Your task to perform on an android device: manage bookmarks in the chrome app Image 0: 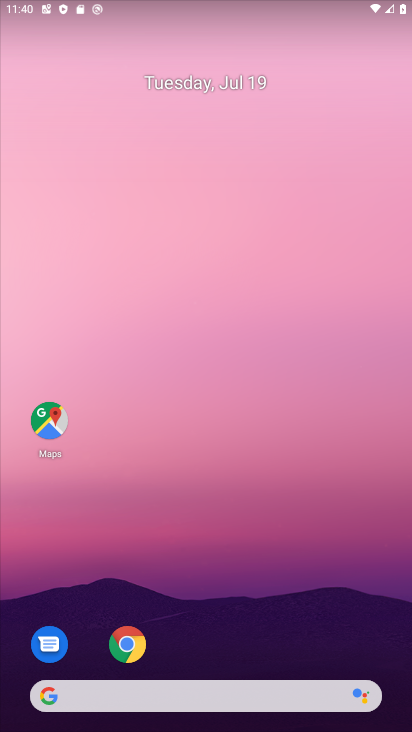
Step 0: click (243, 499)
Your task to perform on an android device: manage bookmarks in the chrome app Image 1: 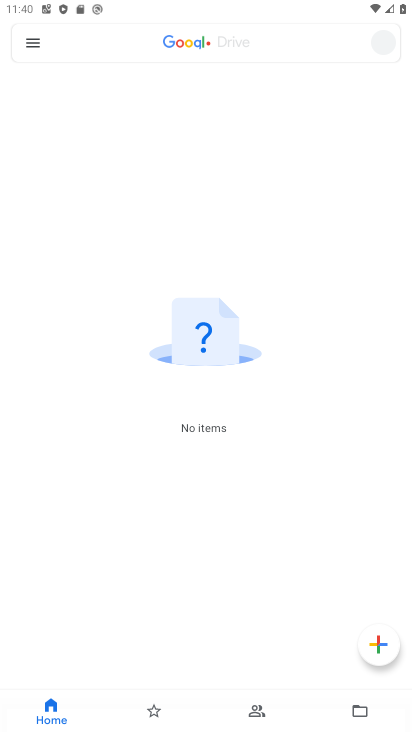
Step 1: click (21, 694)
Your task to perform on an android device: manage bookmarks in the chrome app Image 2: 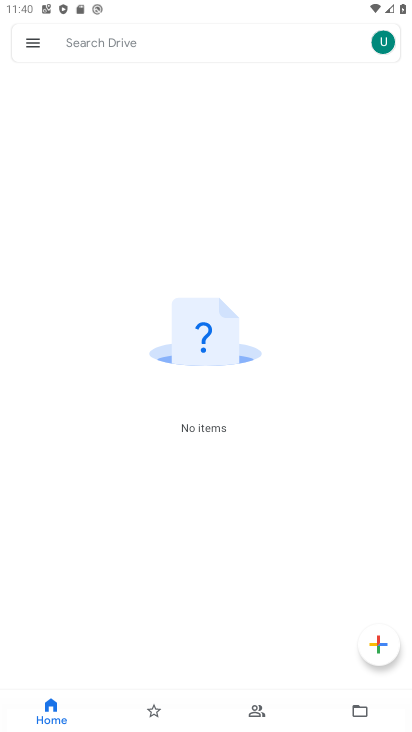
Step 2: press home button
Your task to perform on an android device: manage bookmarks in the chrome app Image 3: 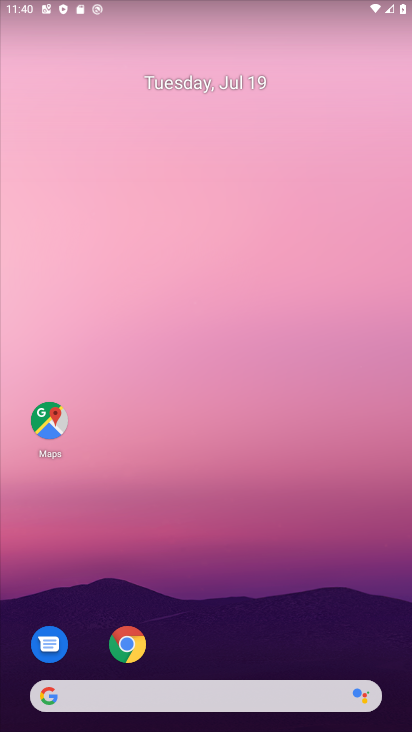
Step 3: drag from (89, 618) to (342, 220)
Your task to perform on an android device: manage bookmarks in the chrome app Image 4: 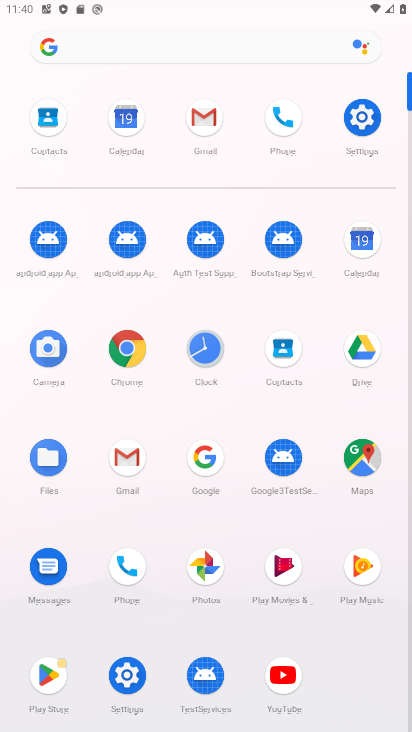
Step 4: click (127, 350)
Your task to perform on an android device: manage bookmarks in the chrome app Image 5: 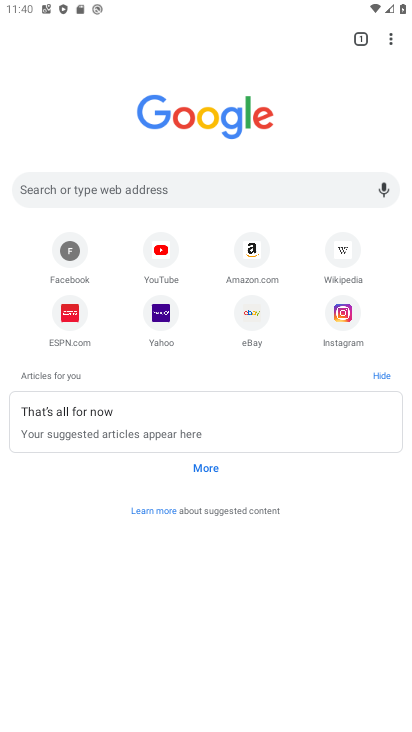
Step 5: click (395, 36)
Your task to perform on an android device: manage bookmarks in the chrome app Image 6: 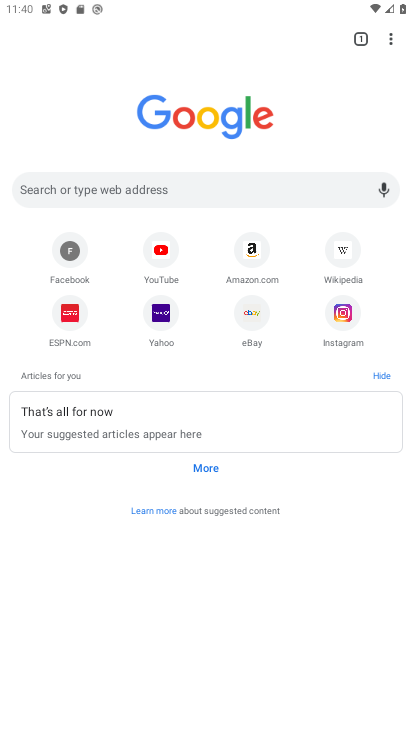
Step 6: click (395, 40)
Your task to perform on an android device: manage bookmarks in the chrome app Image 7: 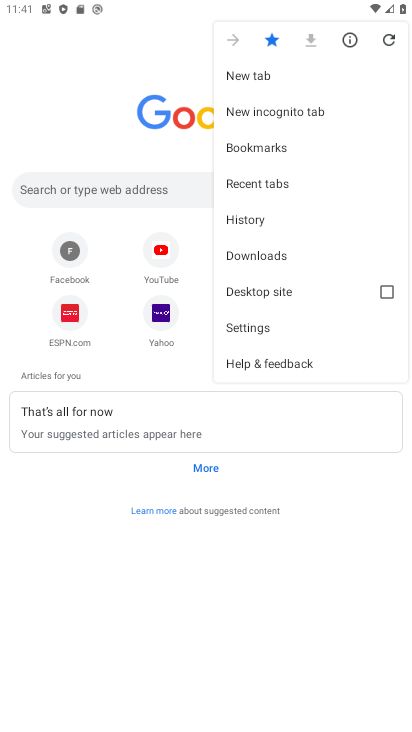
Step 7: click (266, 144)
Your task to perform on an android device: manage bookmarks in the chrome app Image 8: 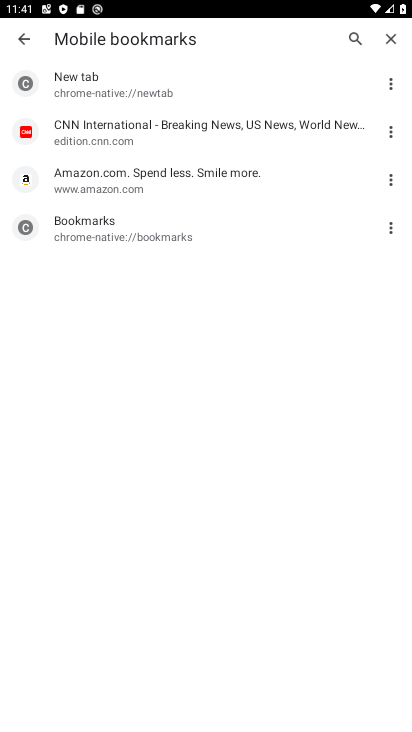
Step 8: task complete